Your task to perform on an android device: open app "Pandora - Music & Podcasts" (install if not already installed) and enter user name: "creator@yahoo.com" and password: "valuable" Image 0: 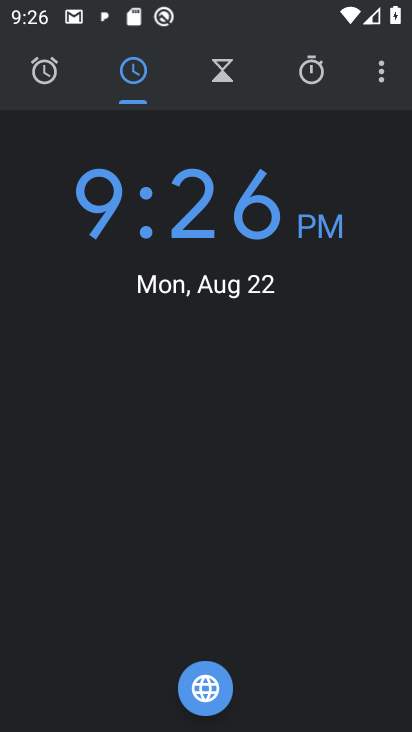
Step 0: press home button
Your task to perform on an android device: open app "Pandora - Music & Podcasts" (install if not already installed) and enter user name: "creator@yahoo.com" and password: "valuable" Image 1: 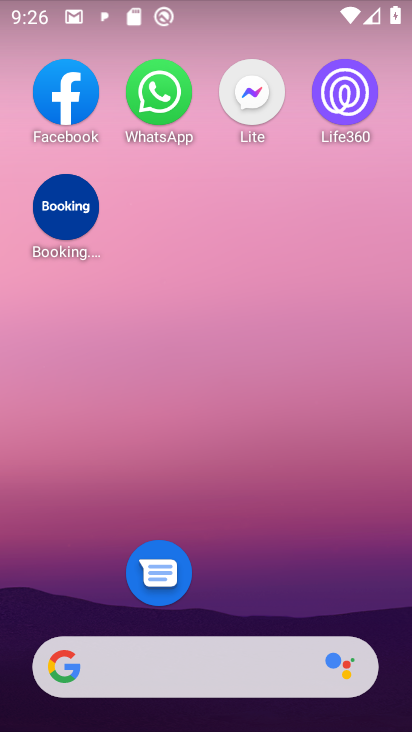
Step 1: drag from (226, 569) to (234, 0)
Your task to perform on an android device: open app "Pandora - Music & Podcasts" (install if not already installed) and enter user name: "creator@yahoo.com" and password: "valuable" Image 2: 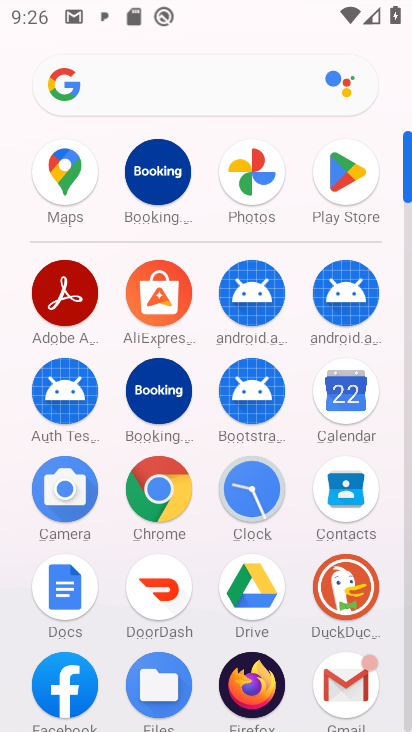
Step 2: click (360, 177)
Your task to perform on an android device: open app "Pandora - Music & Podcasts" (install if not already installed) and enter user name: "creator@yahoo.com" and password: "valuable" Image 3: 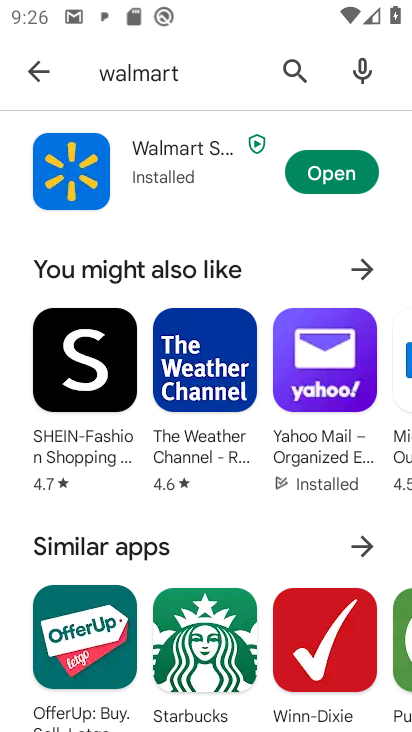
Step 3: click (165, 87)
Your task to perform on an android device: open app "Pandora - Music & Podcasts" (install if not already installed) and enter user name: "creator@yahoo.com" and password: "valuable" Image 4: 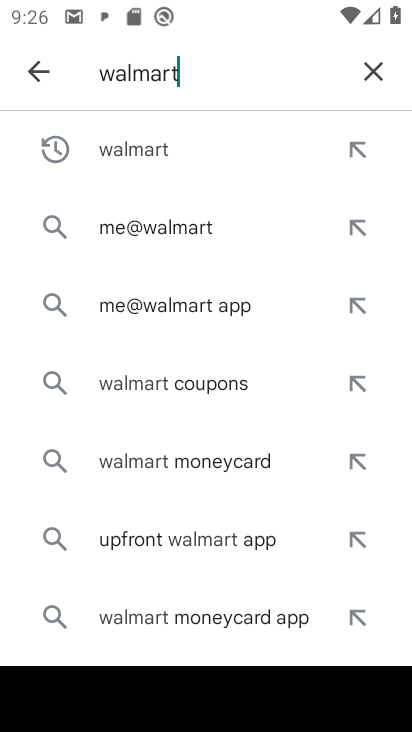
Step 4: click (374, 75)
Your task to perform on an android device: open app "Pandora - Music & Podcasts" (install if not already installed) and enter user name: "creator@yahoo.com" and password: "valuable" Image 5: 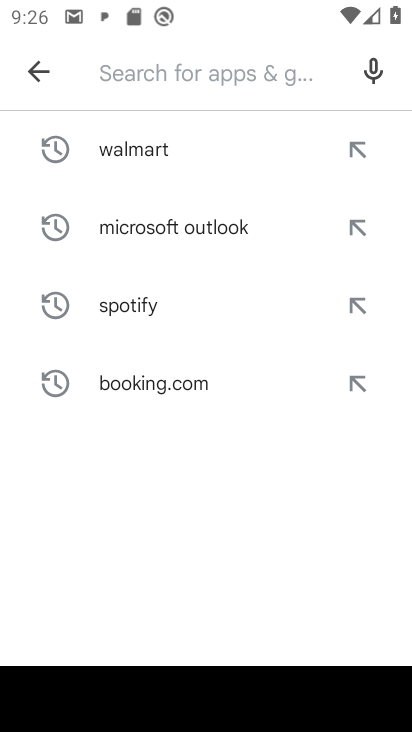
Step 5: type "pandora"
Your task to perform on an android device: open app "Pandora - Music & Podcasts" (install if not already installed) and enter user name: "creator@yahoo.com" and password: "valuable" Image 6: 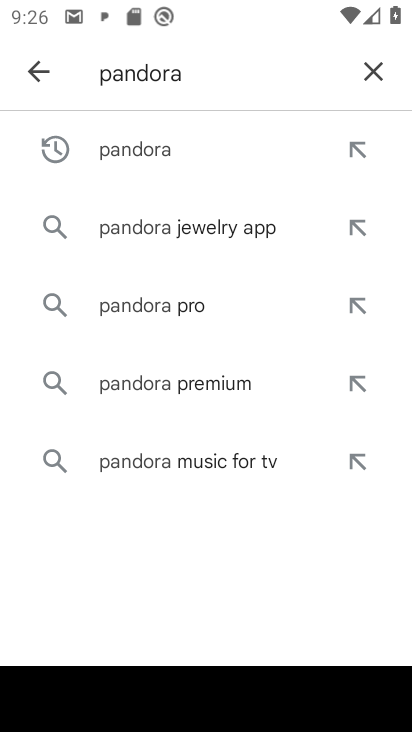
Step 6: click (108, 157)
Your task to perform on an android device: open app "Pandora - Music & Podcasts" (install if not already installed) and enter user name: "creator@yahoo.com" and password: "valuable" Image 7: 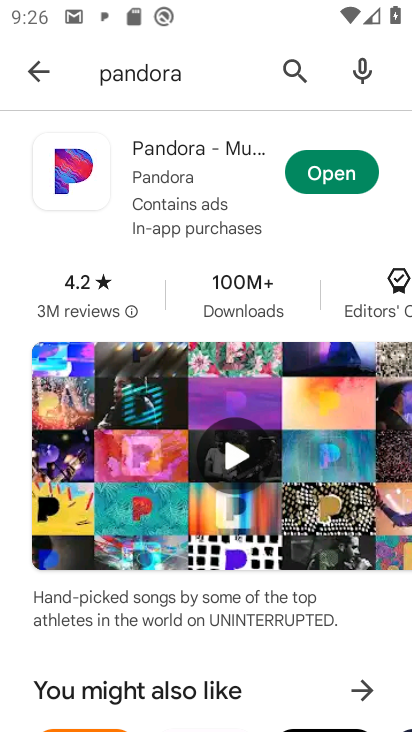
Step 7: click (331, 182)
Your task to perform on an android device: open app "Pandora - Music & Podcasts" (install if not already installed) and enter user name: "creator@yahoo.com" and password: "valuable" Image 8: 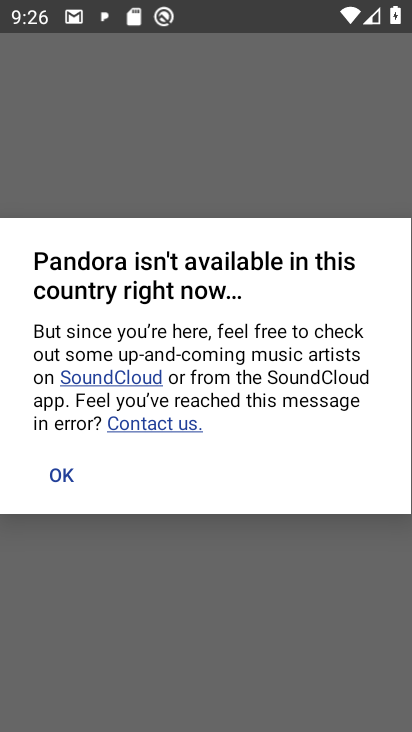
Step 8: click (50, 490)
Your task to perform on an android device: open app "Pandora - Music & Podcasts" (install if not already installed) and enter user name: "creator@yahoo.com" and password: "valuable" Image 9: 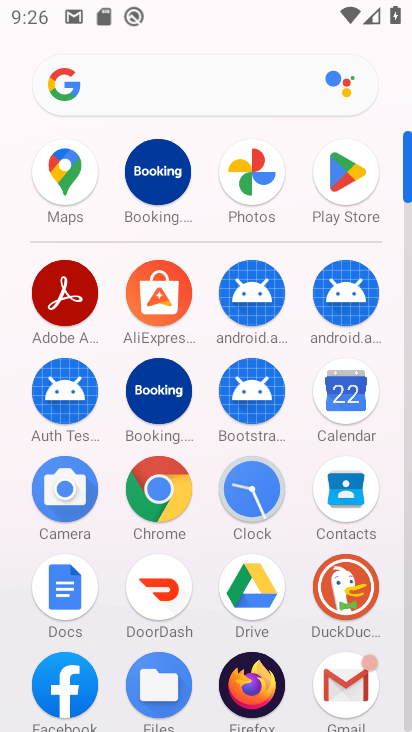
Step 9: task complete